Your task to perform on an android device: snooze an email in the gmail app Image 0: 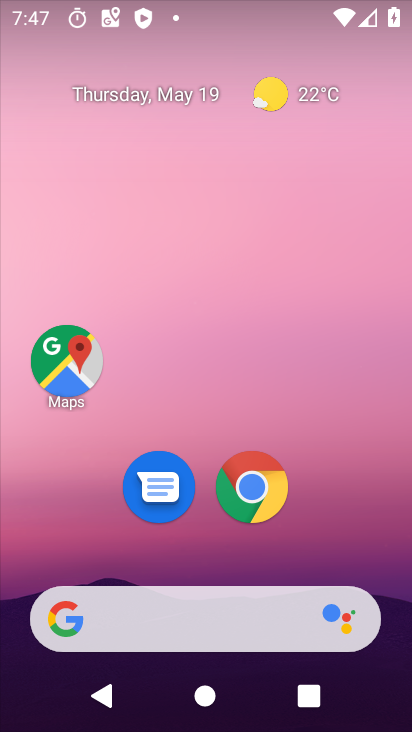
Step 0: press home button
Your task to perform on an android device: snooze an email in the gmail app Image 1: 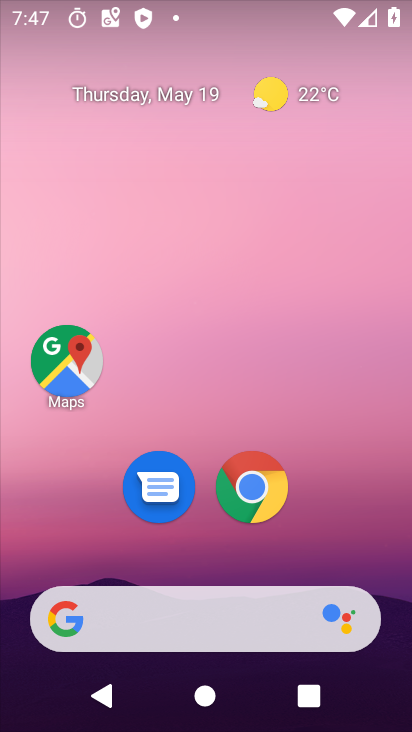
Step 1: drag from (244, 333) to (329, 158)
Your task to perform on an android device: snooze an email in the gmail app Image 2: 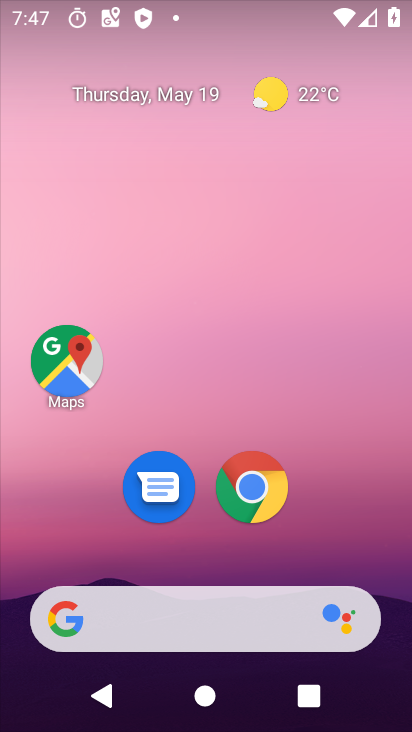
Step 2: drag from (236, 619) to (379, 46)
Your task to perform on an android device: snooze an email in the gmail app Image 3: 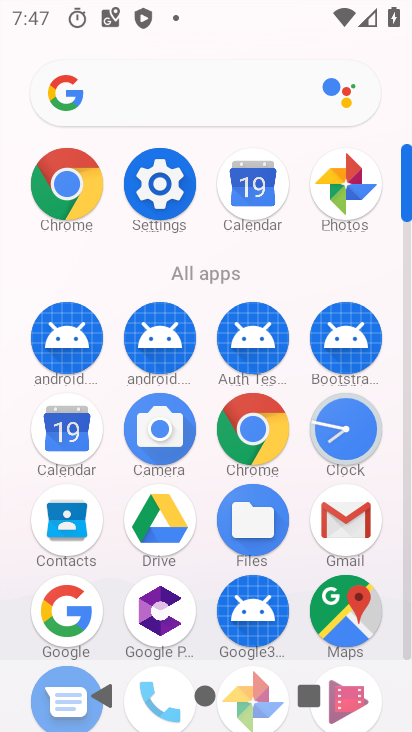
Step 3: click (346, 535)
Your task to perform on an android device: snooze an email in the gmail app Image 4: 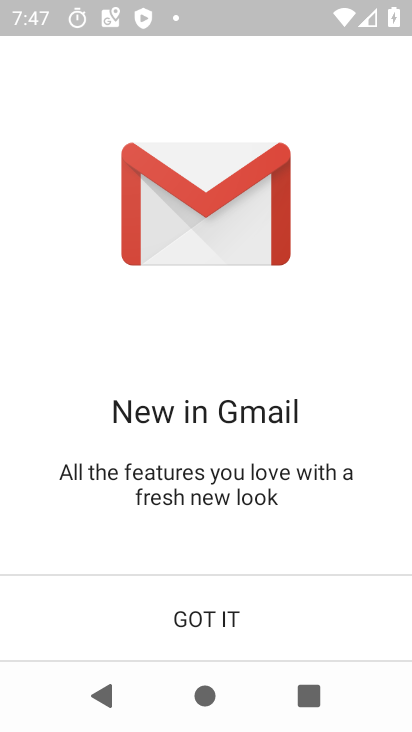
Step 4: click (222, 608)
Your task to perform on an android device: snooze an email in the gmail app Image 5: 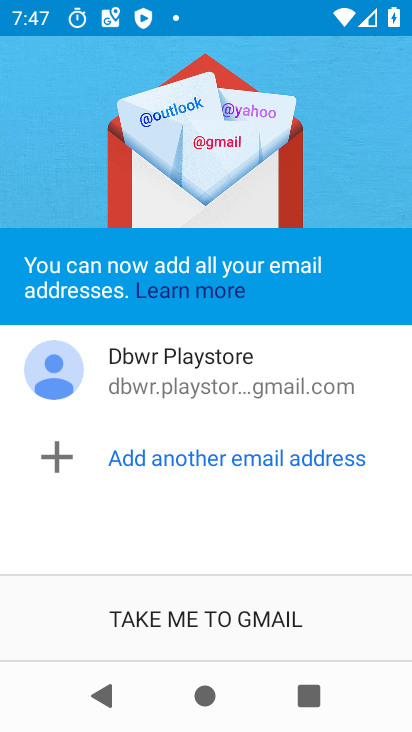
Step 5: click (222, 609)
Your task to perform on an android device: snooze an email in the gmail app Image 6: 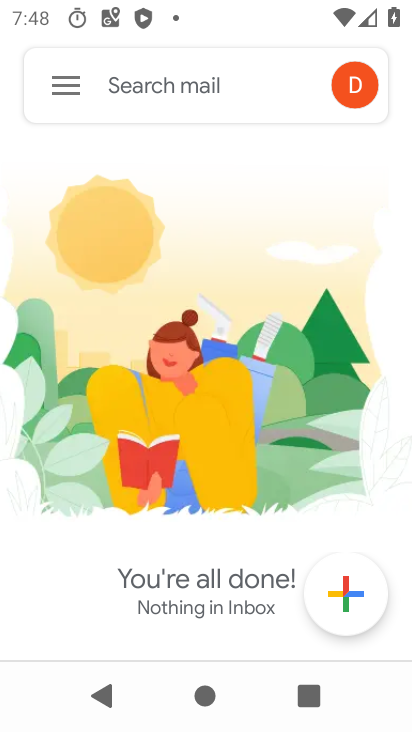
Step 6: task complete